Your task to perform on an android device: When is my next meeting? Image 0: 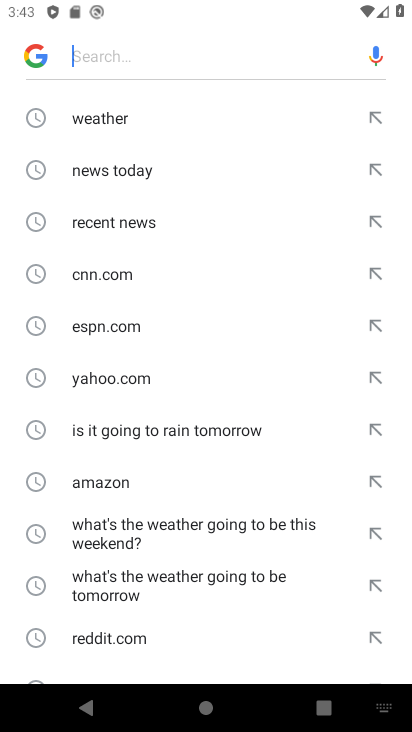
Step 0: press home button
Your task to perform on an android device: When is my next meeting? Image 1: 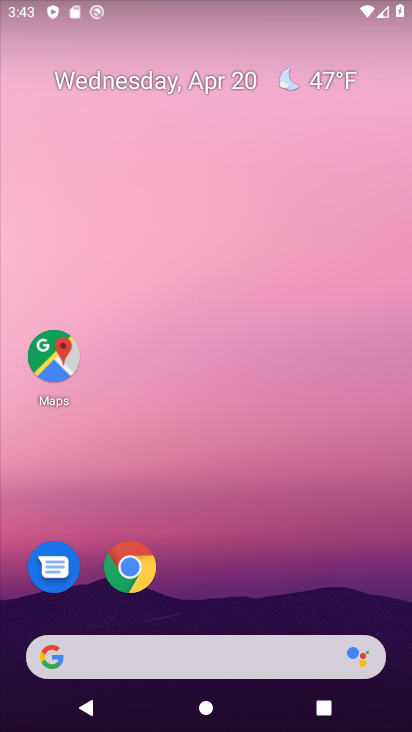
Step 1: click (157, 75)
Your task to perform on an android device: When is my next meeting? Image 2: 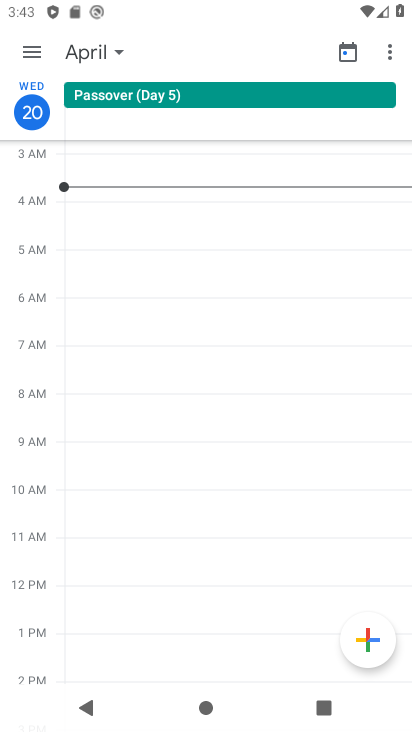
Step 2: click (40, 36)
Your task to perform on an android device: When is my next meeting? Image 3: 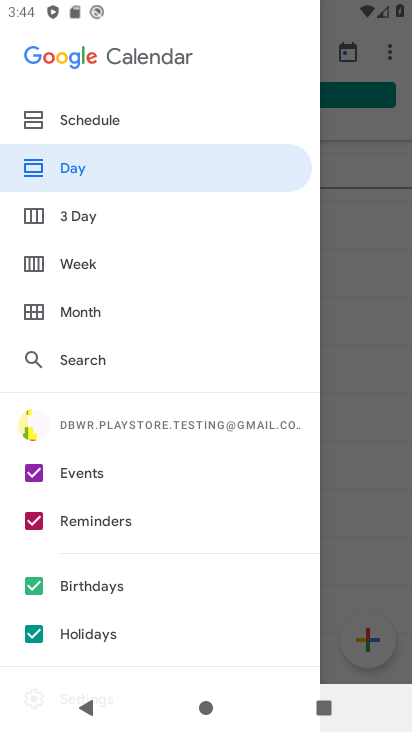
Step 3: task complete